Your task to perform on an android device: Search for pizza restaurants on Maps Image 0: 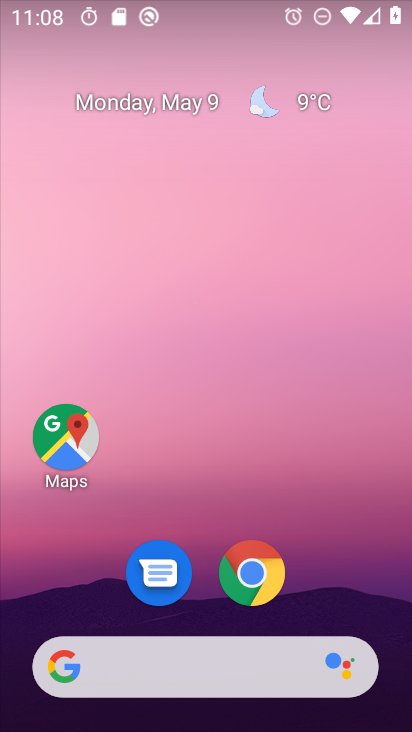
Step 0: drag from (348, 574) to (307, 113)
Your task to perform on an android device: Search for pizza restaurants on Maps Image 1: 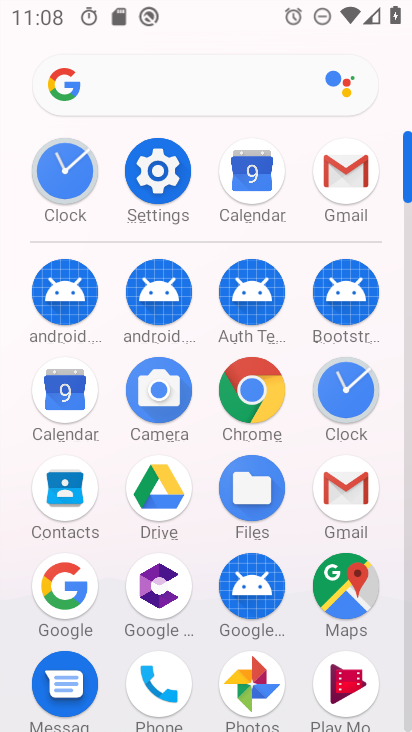
Step 1: click (342, 583)
Your task to perform on an android device: Search for pizza restaurants on Maps Image 2: 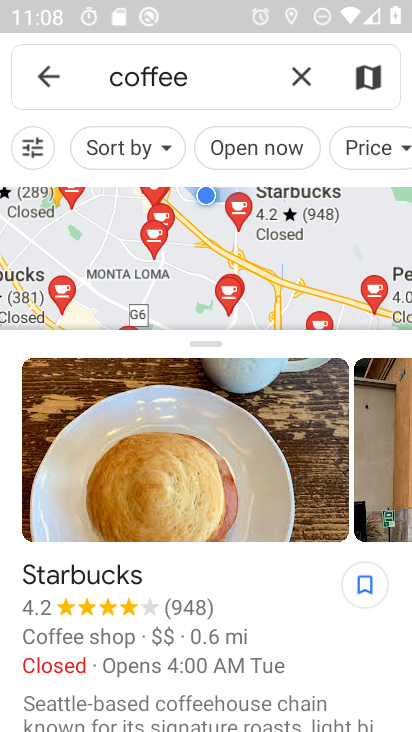
Step 2: click (189, 72)
Your task to perform on an android device: Search for pizza restaurants on Maps Image 3: 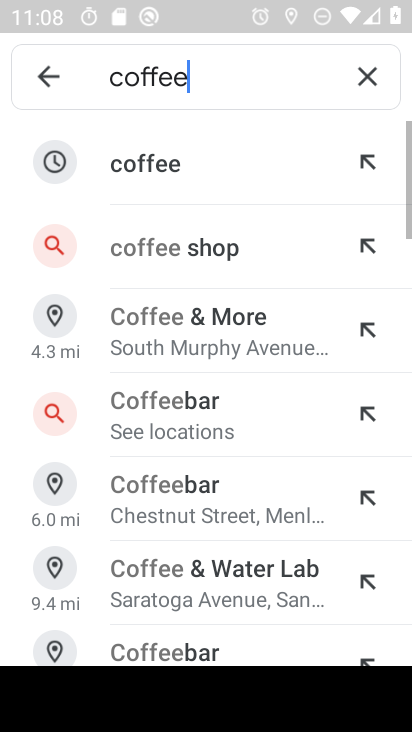
Step 3: click (364, 66)
Your task to perform on an android device: Search for pizza restaurants on Maps Image 4: 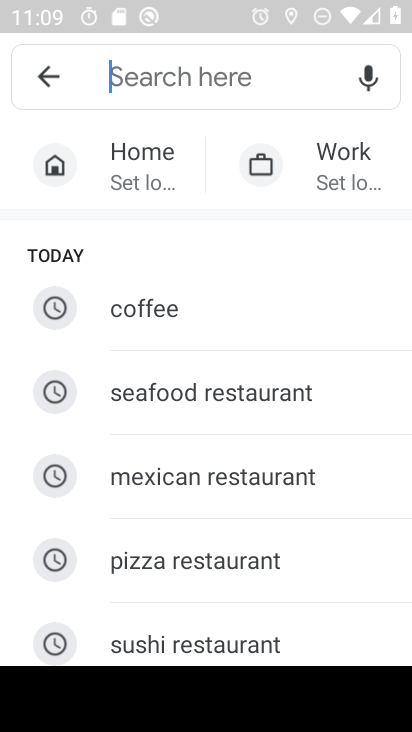
Step 4: type "pizza restaurants"
Your task to perform on an android device: Search for pizza restaurants on Maps Image 5: 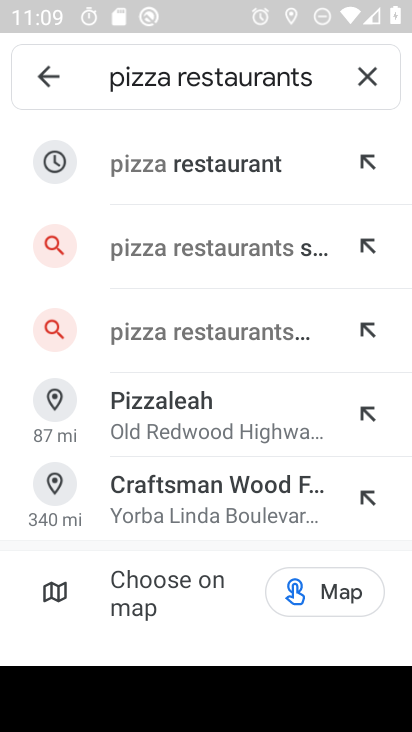
Step 5: press enter
Your task to perform on an android device: Search for pizza restaurants on Maps Image 6: 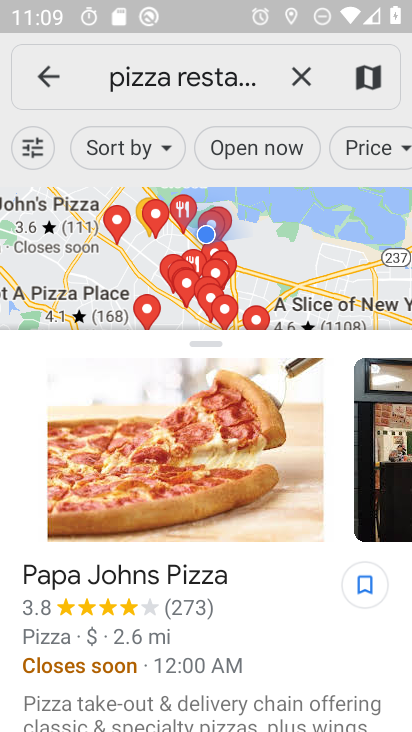
Step 6: task complete